Your task to perform on an android device: Go to Wikipedia Image 0: 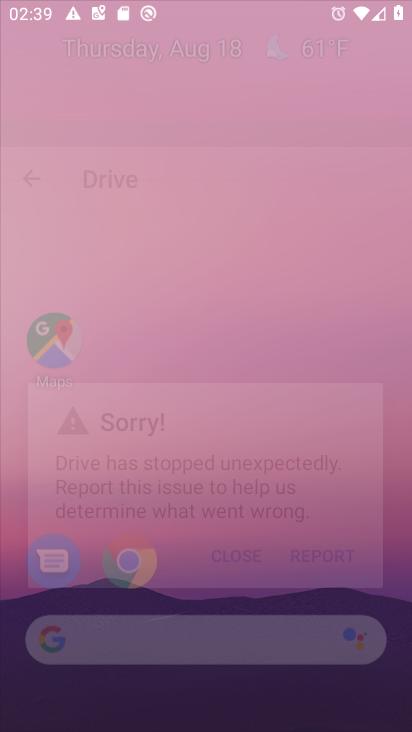
Step 0: press home button
Your task to perform on an android device: Go to Wikipedia Image 1: 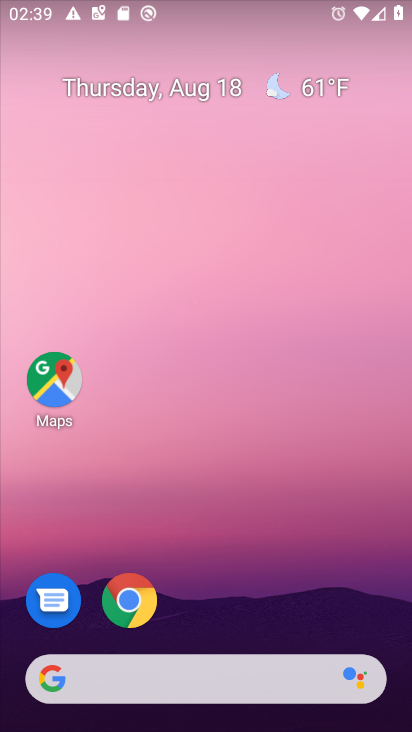
Step 1: click (48, 682)
Your task to perform on an android device: Go to Wikipedia Image 2: 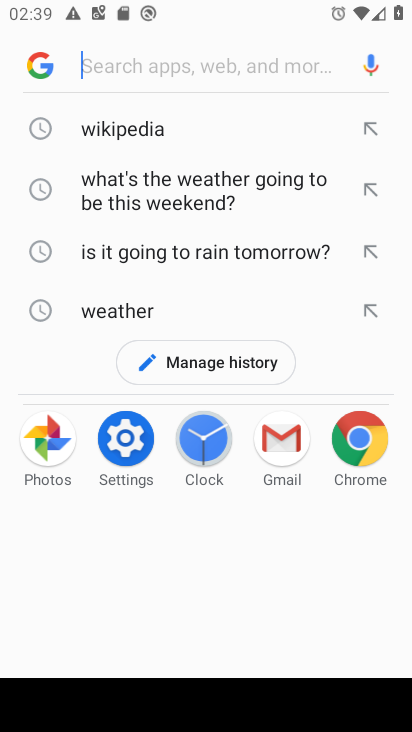
Step 2: click (133, 128)
Your task to perform on an android device: Go to Wikipedia Image 3: 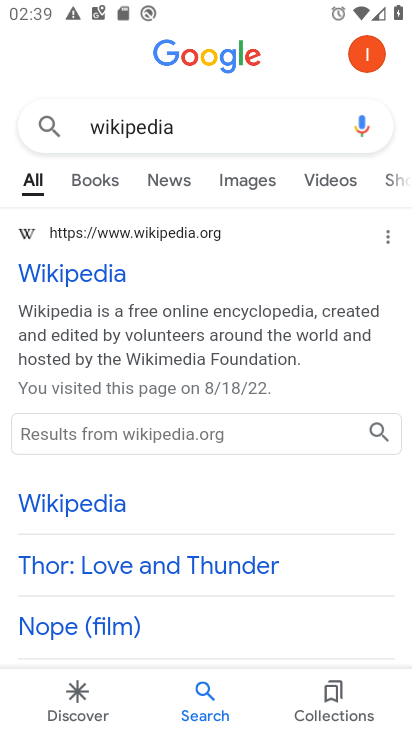
Step 3: click (76, 280)
Your task to perform on an android device: Go to Wikipedia Image 4: 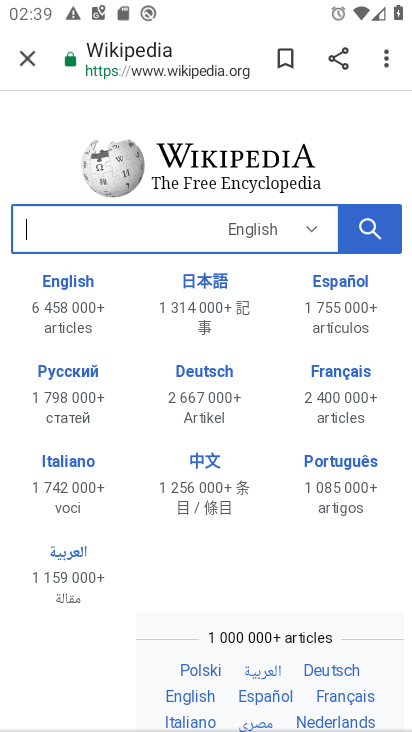
Step 4: task complete